Your task to perform on an android device: Open CNN.com Image 0: 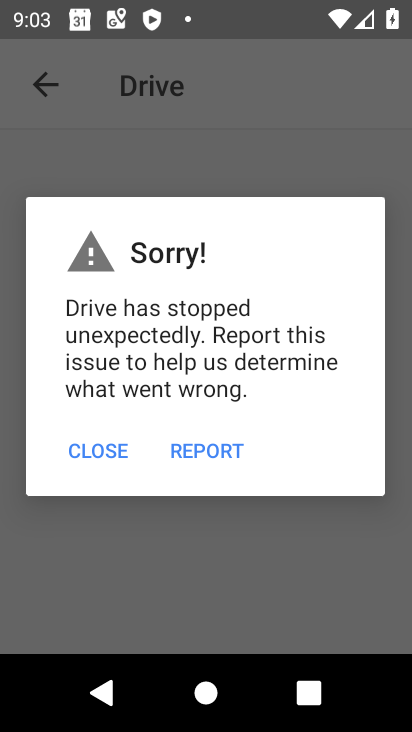
Step 0: press home button
Your task to perform on an android device: Open CNN.com Image 1: 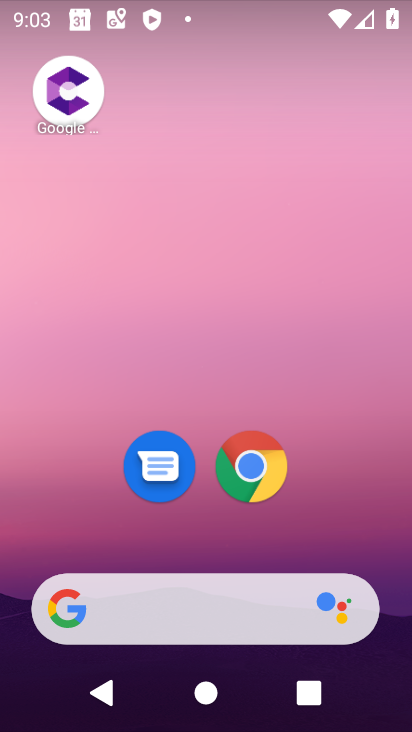
Step 1: click (278, 455)
Your task to perform on an android device: Open CNN.com Image 2: 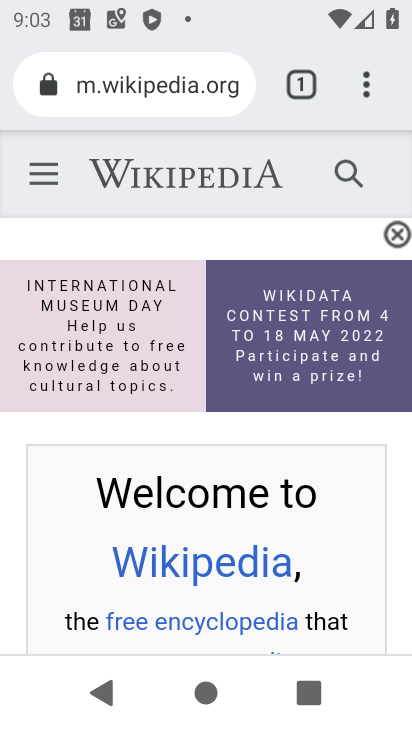
Step 2: click (149, 109)
Your task to perform on an android device: Open CNN.com Image 3: 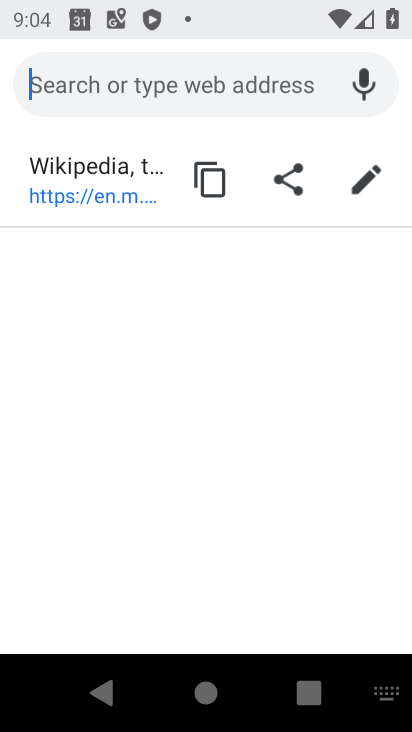
Step 3: type "cnn"
Your task to perform on an android device: Open CNN.com Image 4: 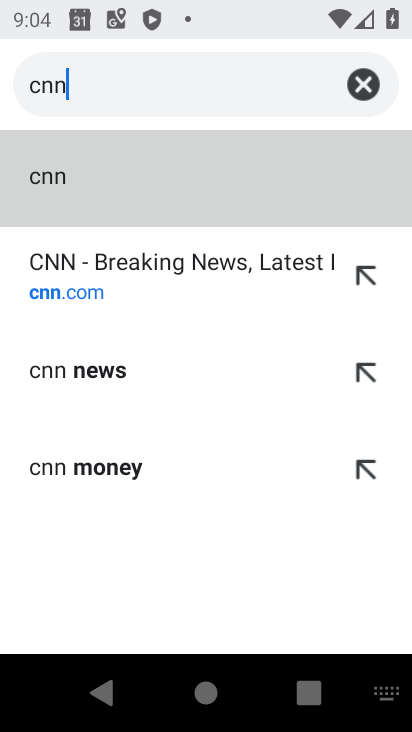
Step 4: click (116, 270)
Your task to perform on an android device: Open CNN.com Image 5: 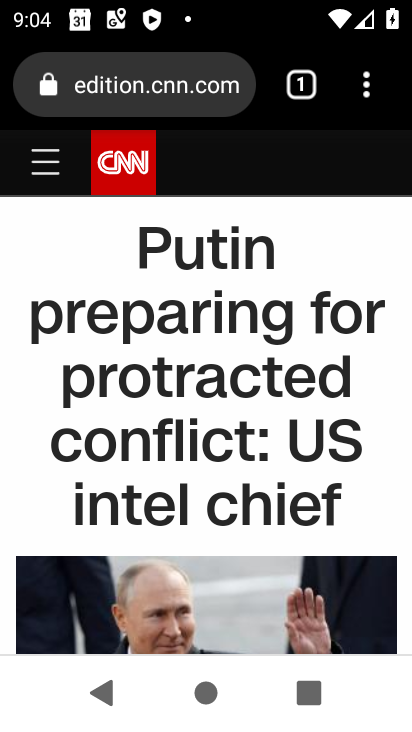
Step 5: task complete